Your task to perform on an android device: check the backup settings in the google photos Image 0: 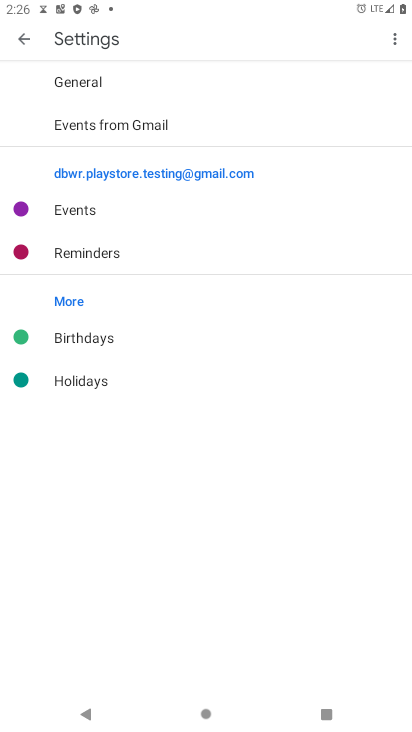
Step 0: press home button
Your task to perform on an android device: check the backup settings in the google photos Image 1: 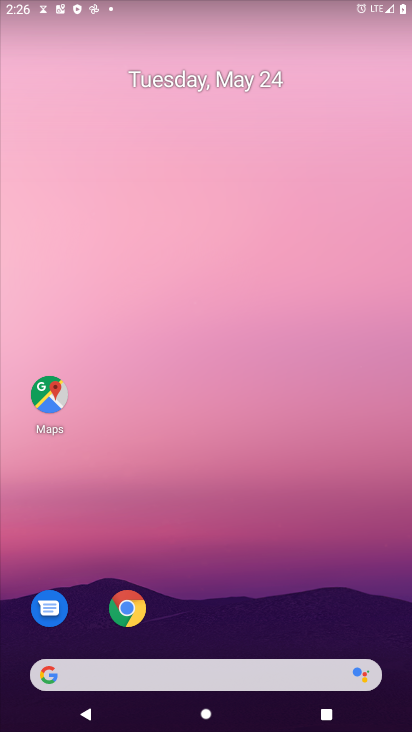
Step 1: drag from (276, 705) to (290, 139)
Your task to perform on an android device: check the backup settings in the google photos Image 2: 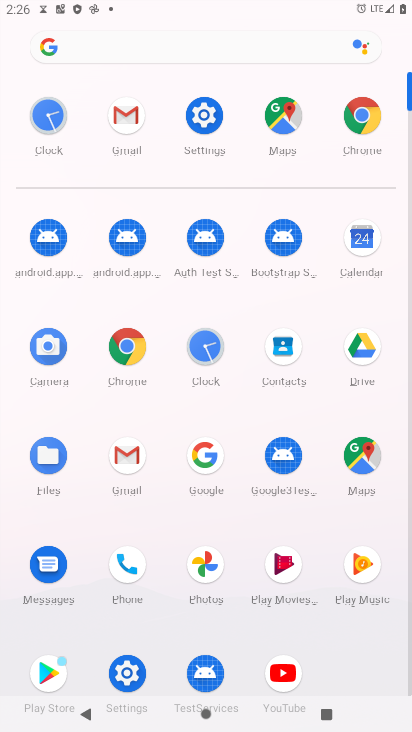
Step 2: click (211, 565)
Your task to perform on an android device: check the backup settings in the google photos Image 3: 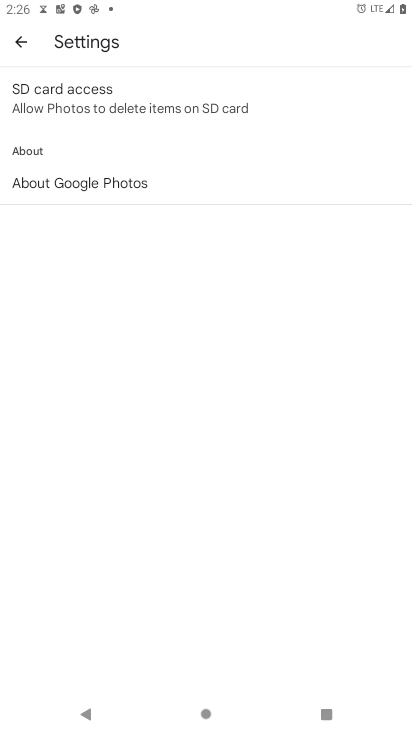
Step 3: click (26, 49)
Your task to perform on an android device: check the backup settings in the google photos Image 4: 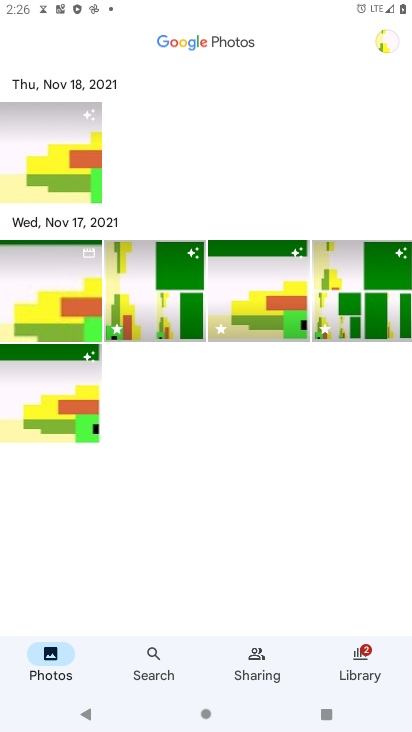
Step 4: click (377, 42)
Your task to perform on an android device: check the backup settings in the google photos Image 5: 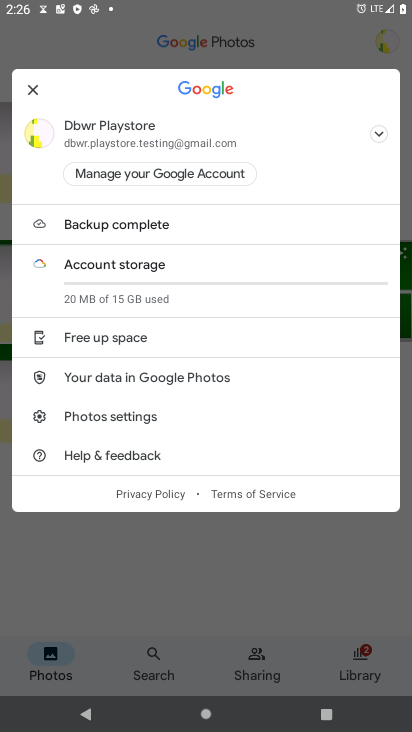
Step 5: click (115, 413)
Your task to perform on an android device: check the backup settings in the google photos Image 6: 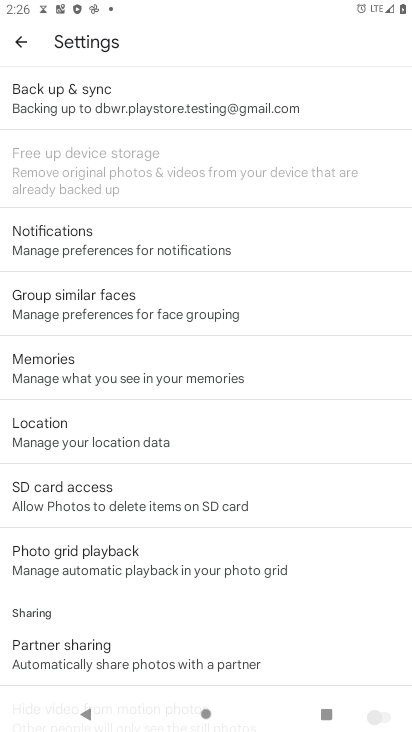
Step 6: click (91, 95)
Your task to perform on an android device: check the backup settings in the google photos Image 7: 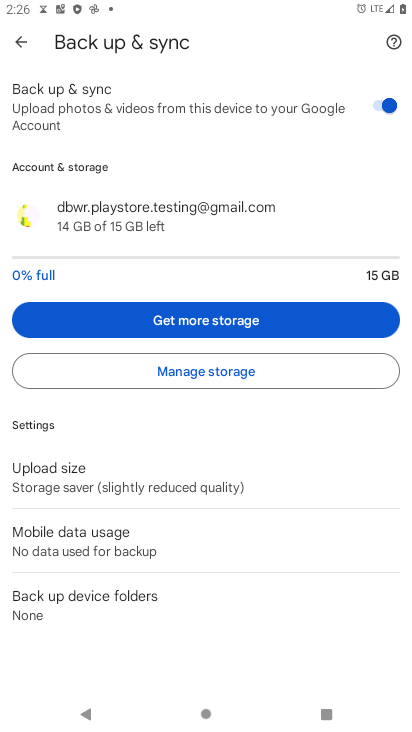
Step 7: task complete